Your task to perform on an android device: Open Chrome and go to the settings page Image 0: 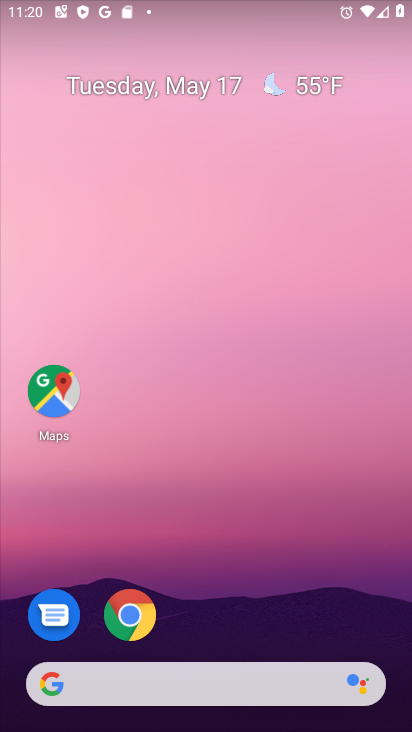
Step 0: click (135, 606)
Your task to perform on an android device: Open Chrome and go to the settings page Image 1: 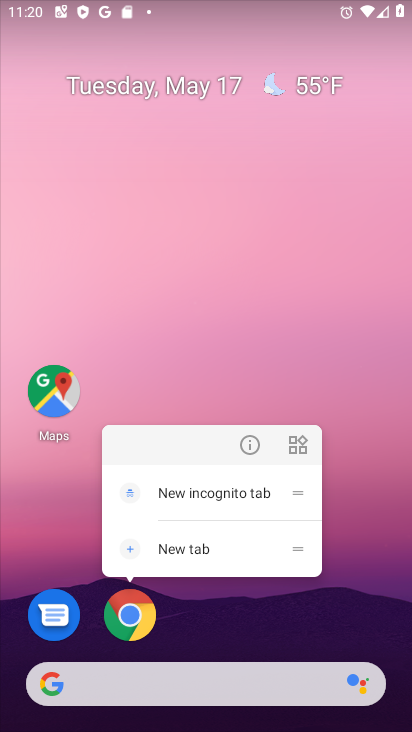
Step 1: click (131, 613)
Your task to perform on an android device: Open Chrome and go to the settings page Image 2: 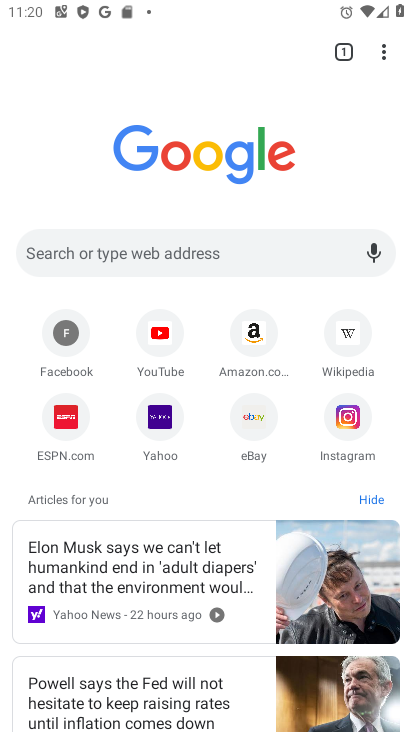
Step 2: task complete